Your task to perform on an android device: Search for usb-a to usb-b on ebay, select the first entry, and add it to the cart. Image 0: 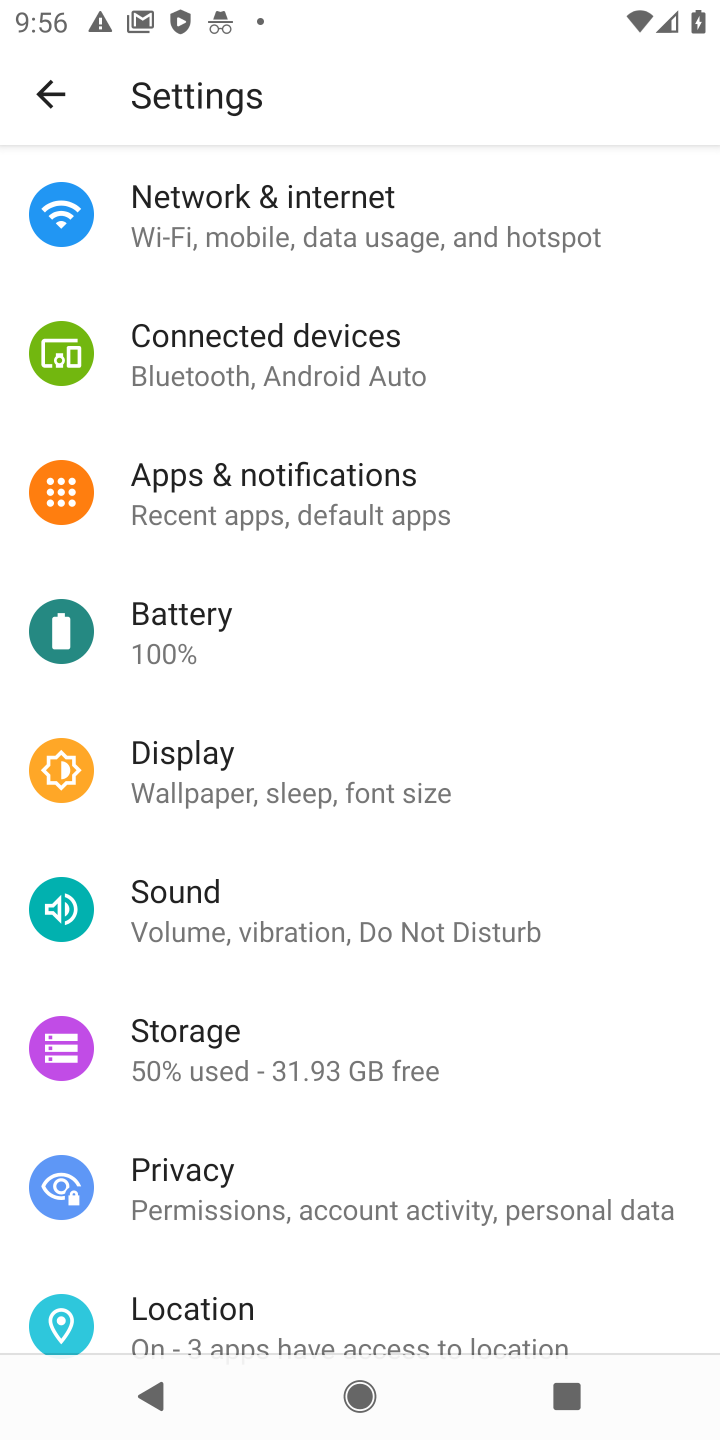
Step 0: press home button
Your task to perform on an android device: Search for usb-a to usb-b on ebay, select the first entry, and add it to the cart. Image 1: 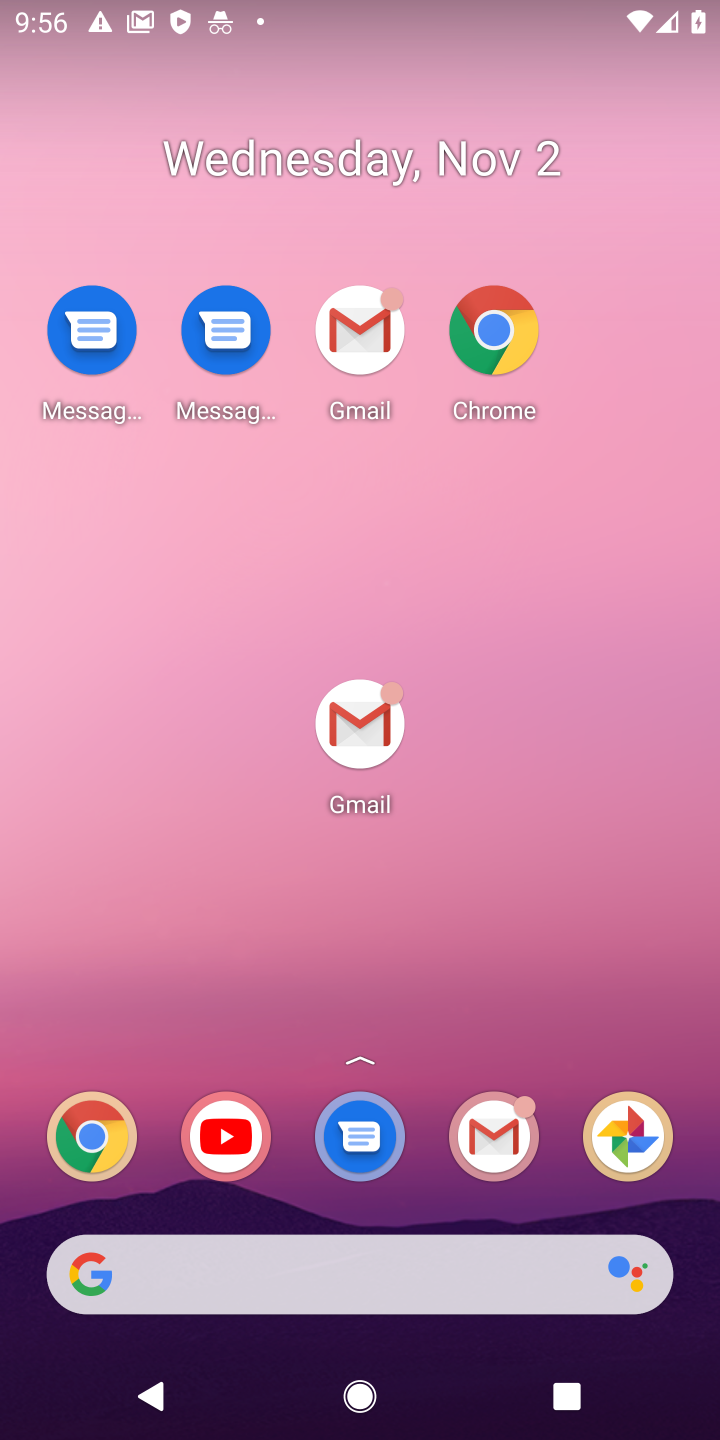
Step 1: drag from (254, 854) to (240, 445)
Your task to perform on an android device: Search for usb-a to usb-b on ebay, select the first entry, and add it to the cart. Image 2: 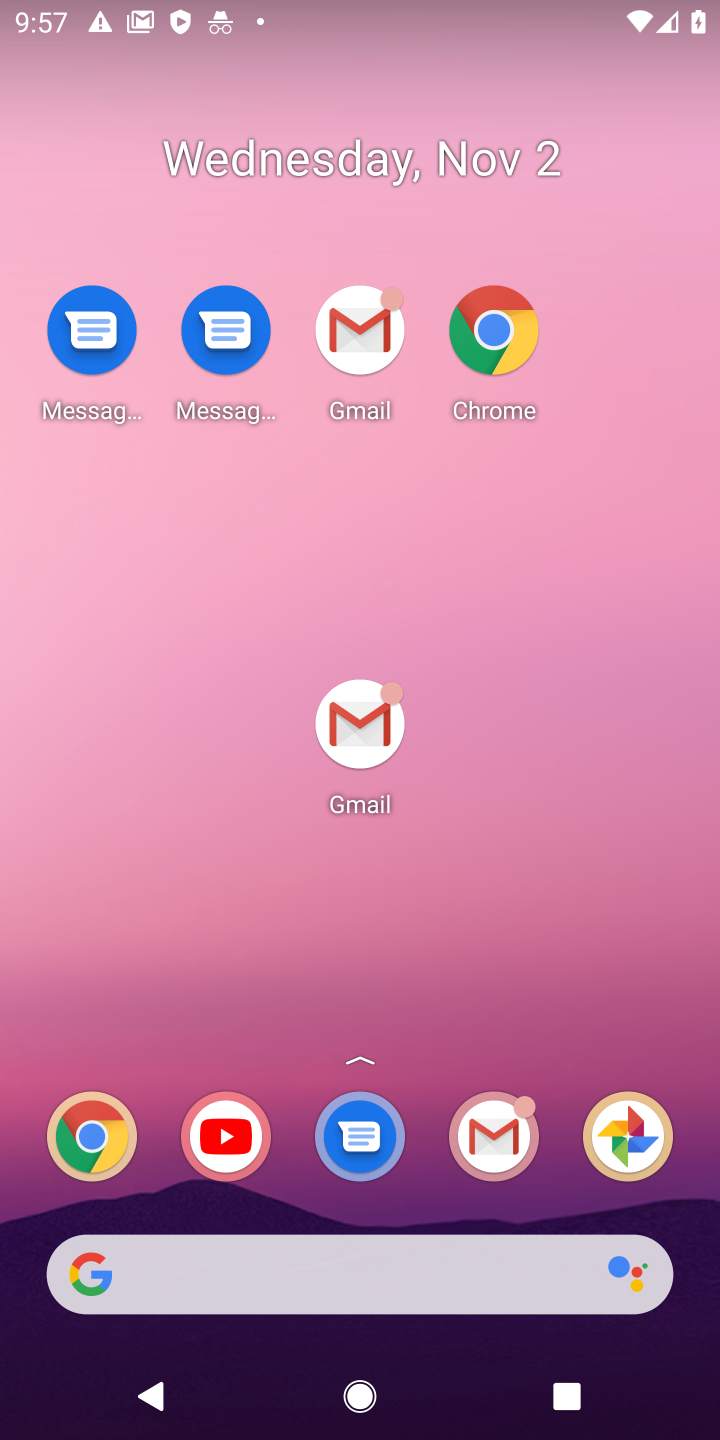
Step 2: drag from (286, 1286) to (297, 145)
Your task to perform on an android device: Search for usb-a to usb-b on ebay, select the first entry, and add it to the cart. Image 3: 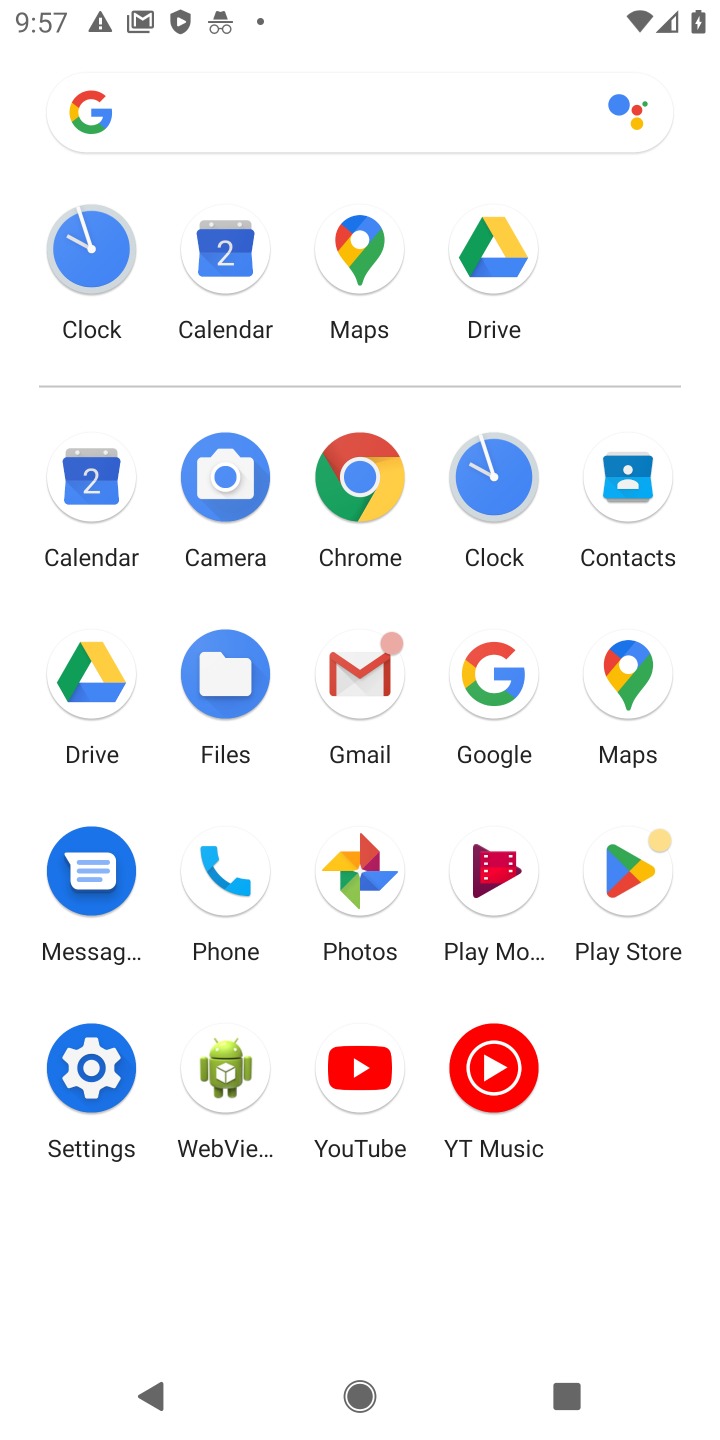
Step 3: click (490, 638)
Your task to perform on an android device: Search for usb-a to usb-b on ebay, select the first entry, and add it to the cart. Image 4: 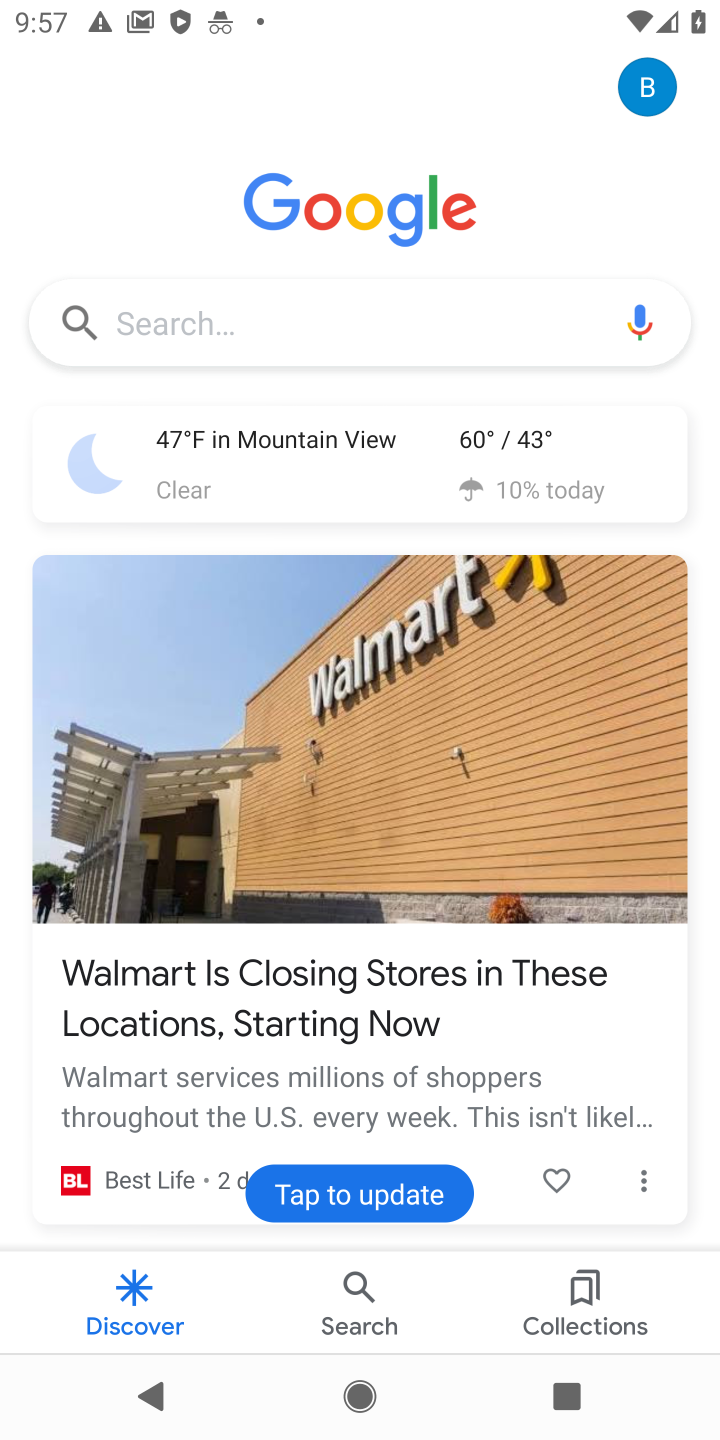
Step 4: click (316, 264)
Your task to perform on an android device: Search for usb-a to usb-b on ebay, select the first entry, and add it to the cart. Image 5: 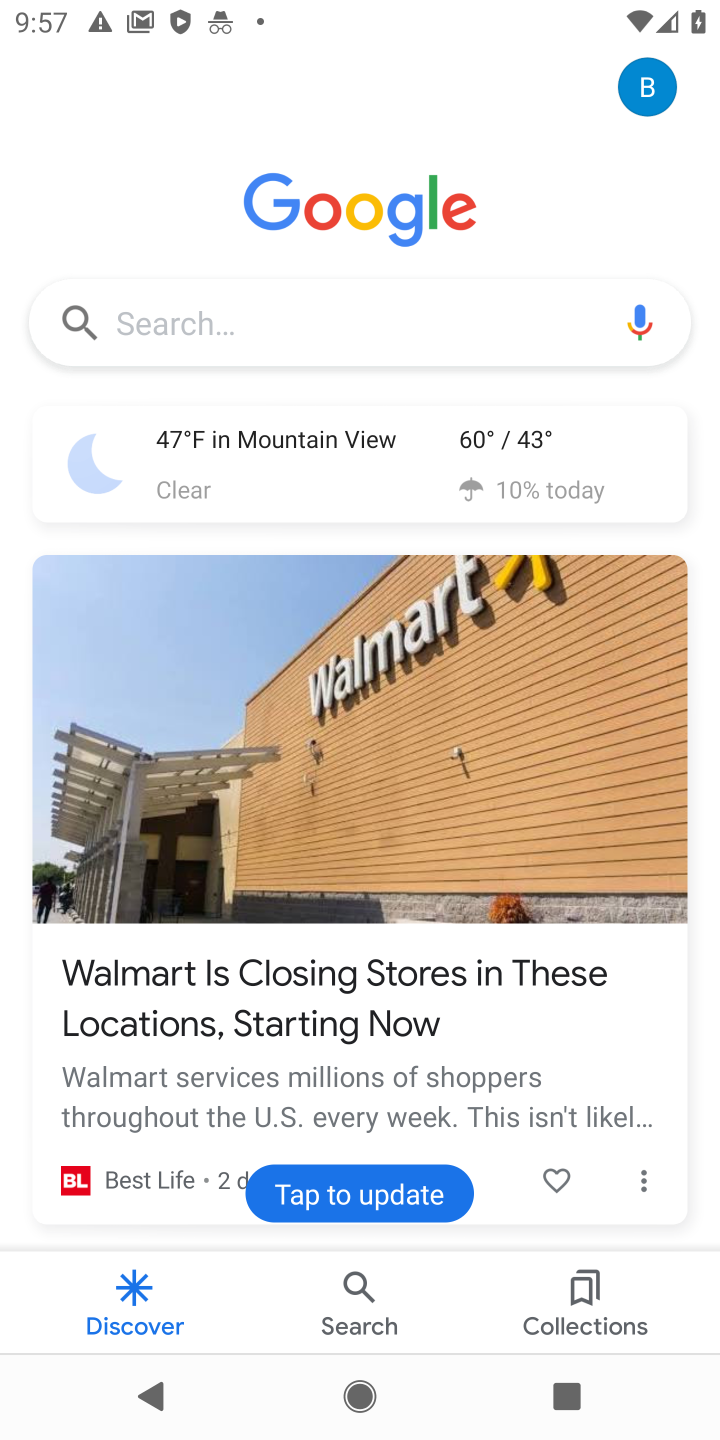
Step 5: type "usb-a to usb-b  "
Your task to perform on an android device: Search for usb-a to usb-b on ebay, select the first entry, and add it to the cart. Image 6: 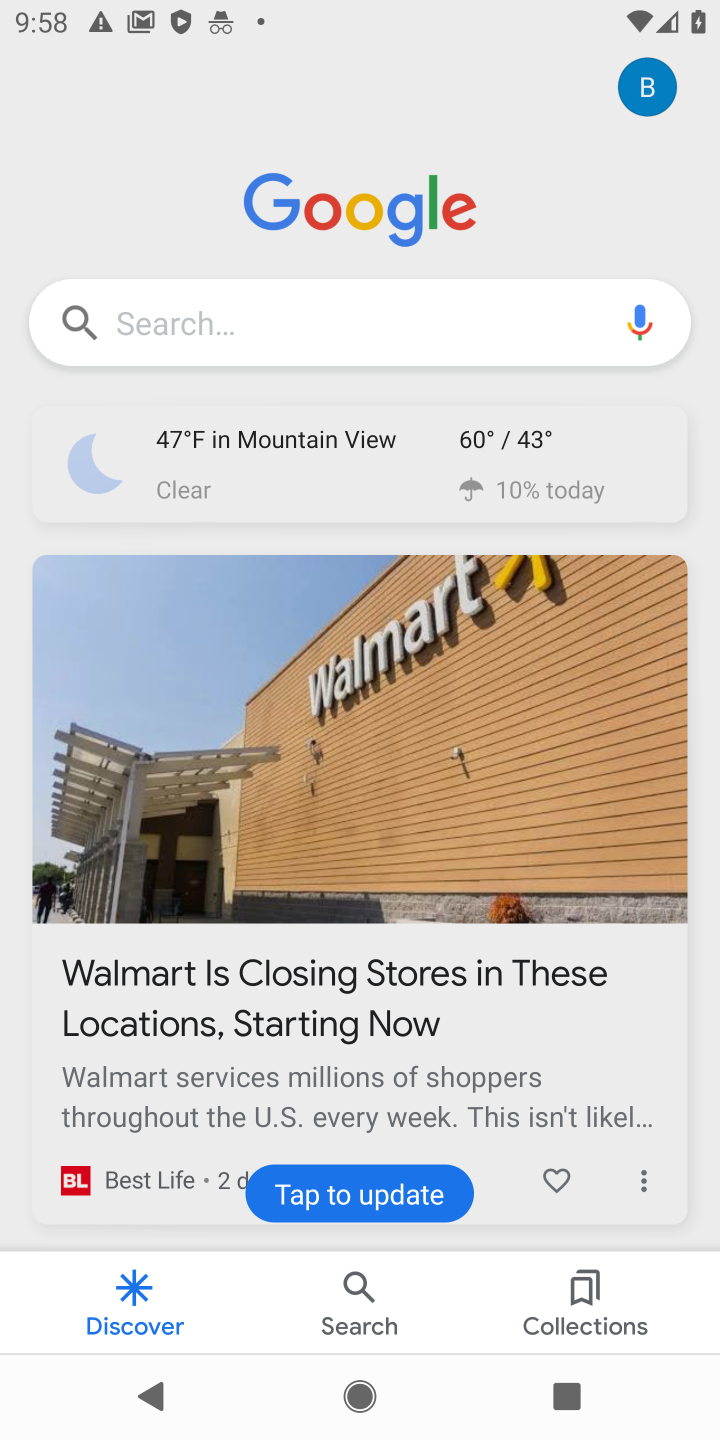
Step 6: click (383, 322)
Your task to perform on an android device: Search for usb-a to usb-b on ebay, select the first entry, and add it to the cart. Image 7: 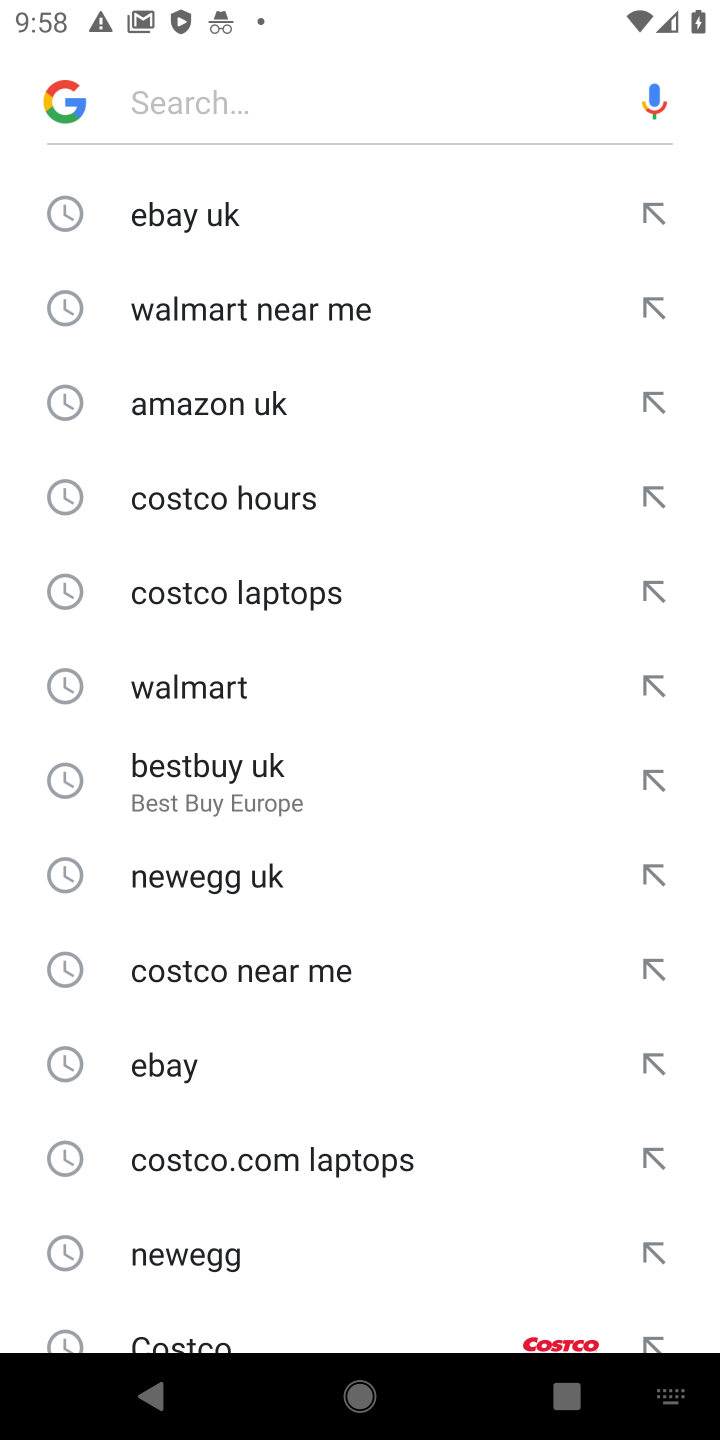
Step 7: type "ebay "
Your task to perform on an android device: Search for usb-a to usb-b on ebay, select the first entry, and add it to the cart. Image 8: 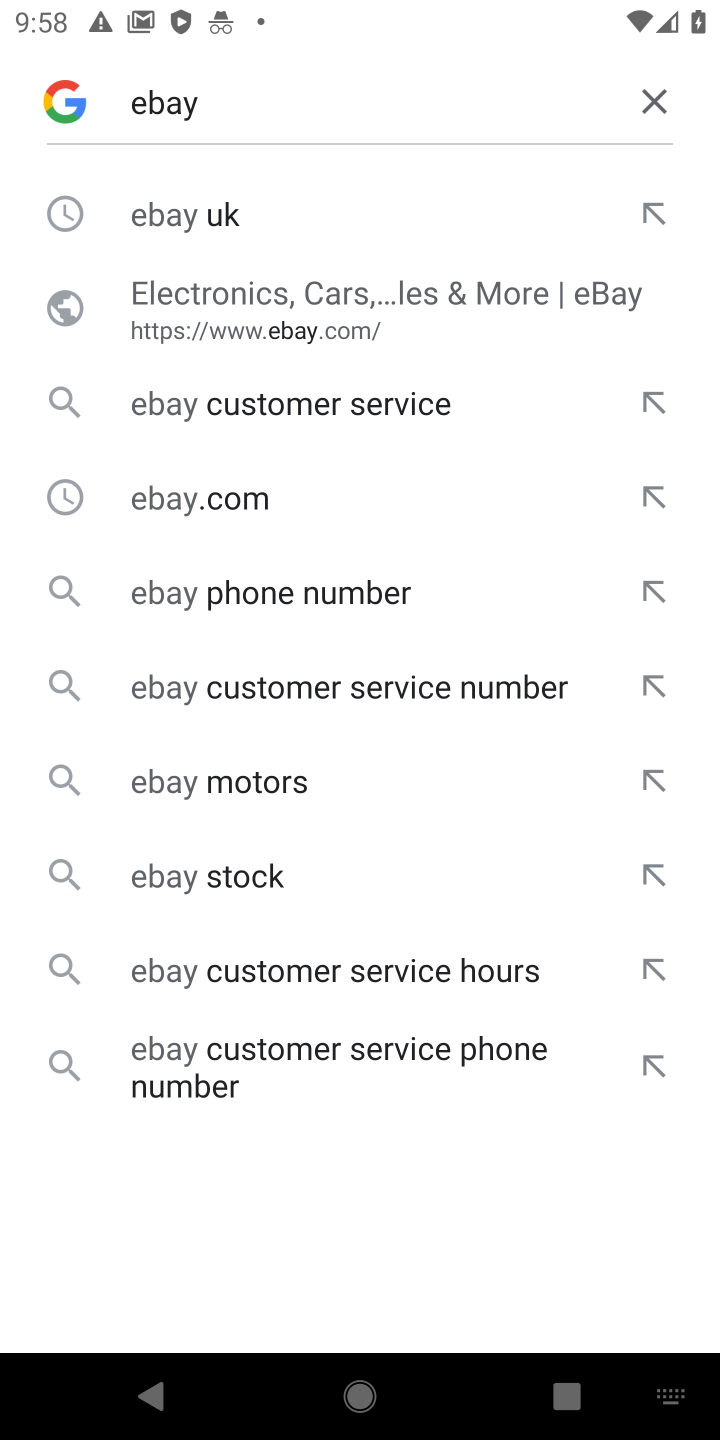
Step 8: click (215, 197)
Your task to perform on an android device: Search for usb-a to usb-b on ebay, select the first entry, and add it to the cart. Image 9: 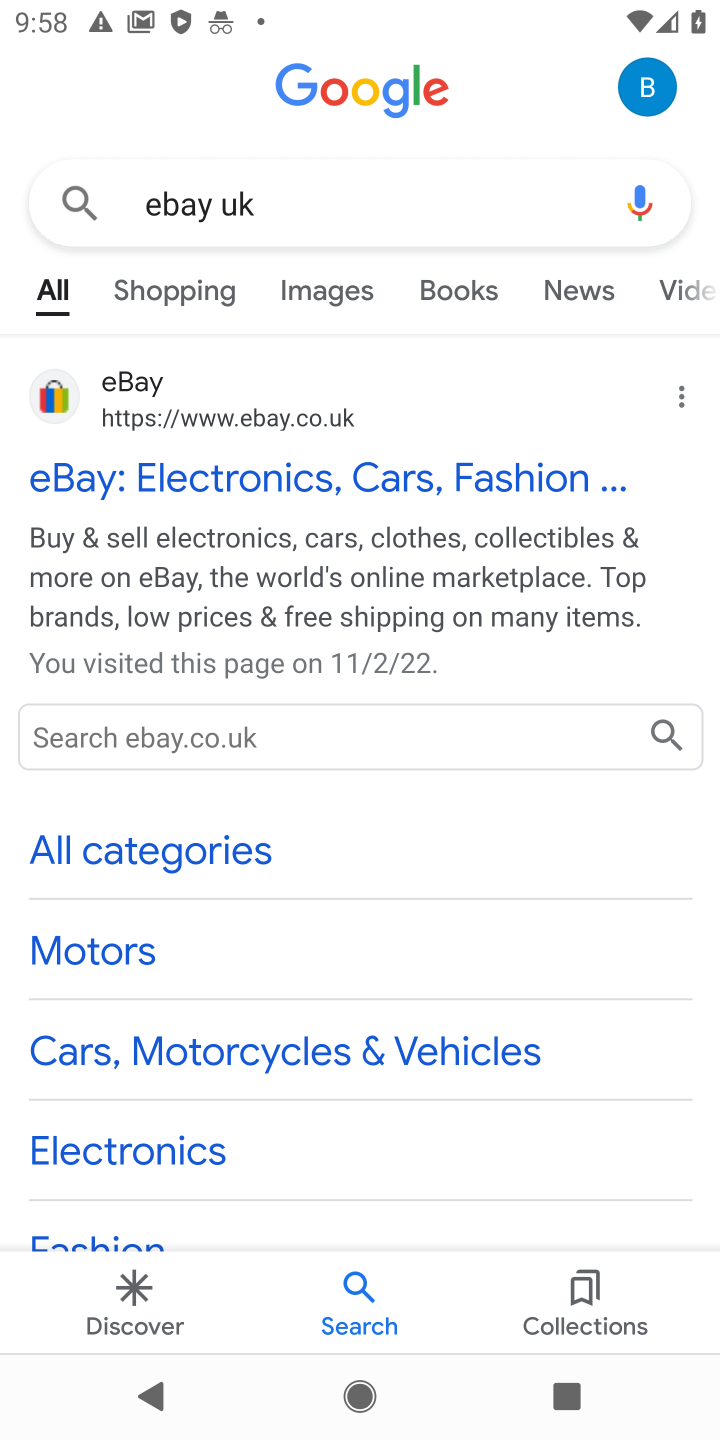
Step 9: click (39, 400)
Your task to perform on an android device: Search for usb-a to usb-b on ebay, select the first entry, and add it to the cart. Image 10: 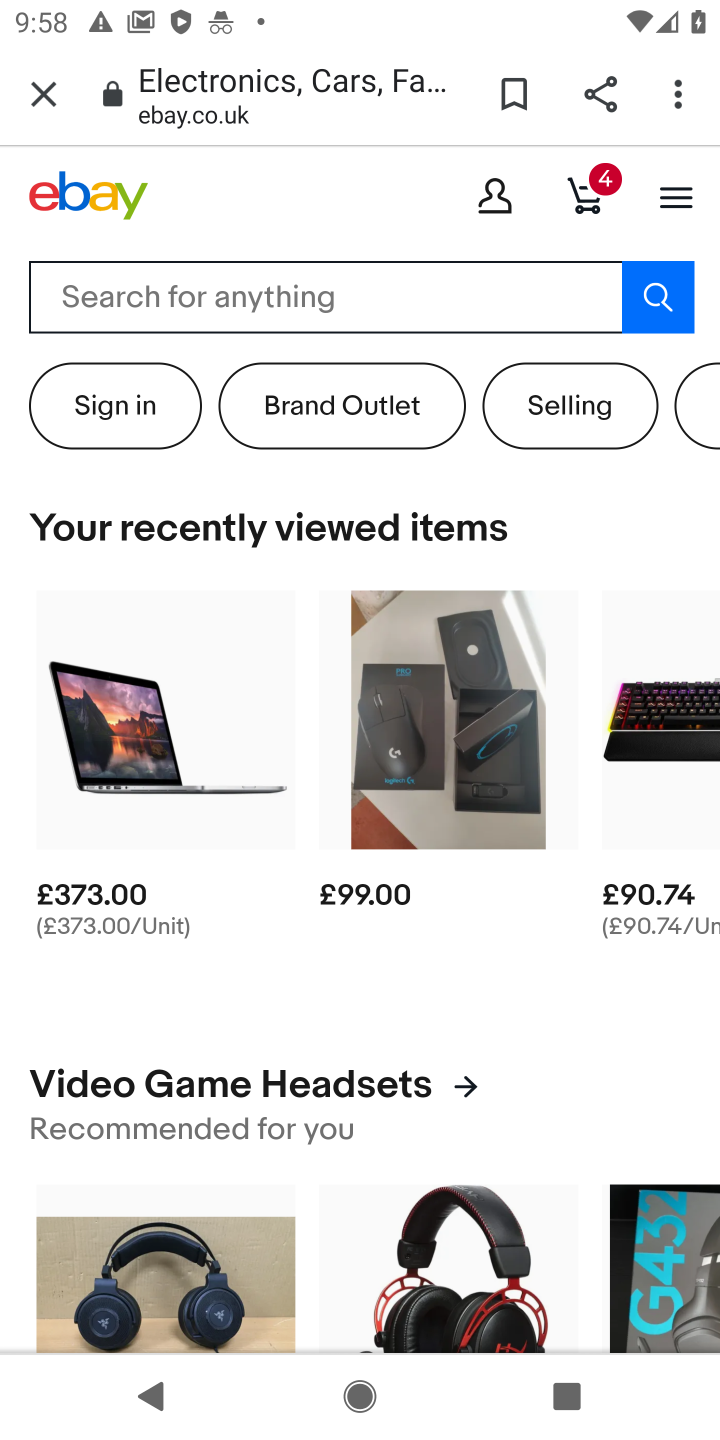
Step 10: click (219, 286)
Your task to perform on an android device: Search for usb-a to usb-b on ebay, select the first entry, and add it to the cart. Image 11: 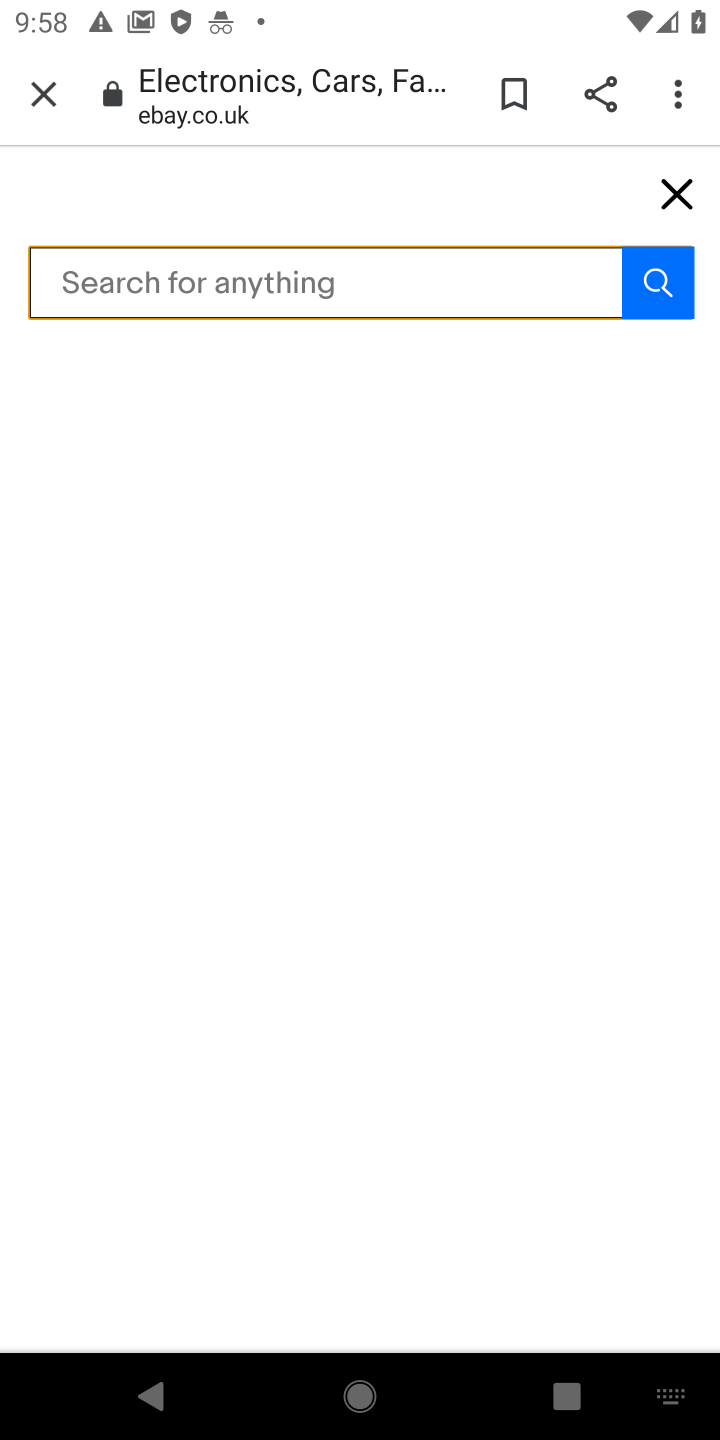
Step 11: click (319, 250)
Your task to perform on an android device: Search for usb-a to usb-b on ebay, select the first entry, and add it to the cart. Image 12: 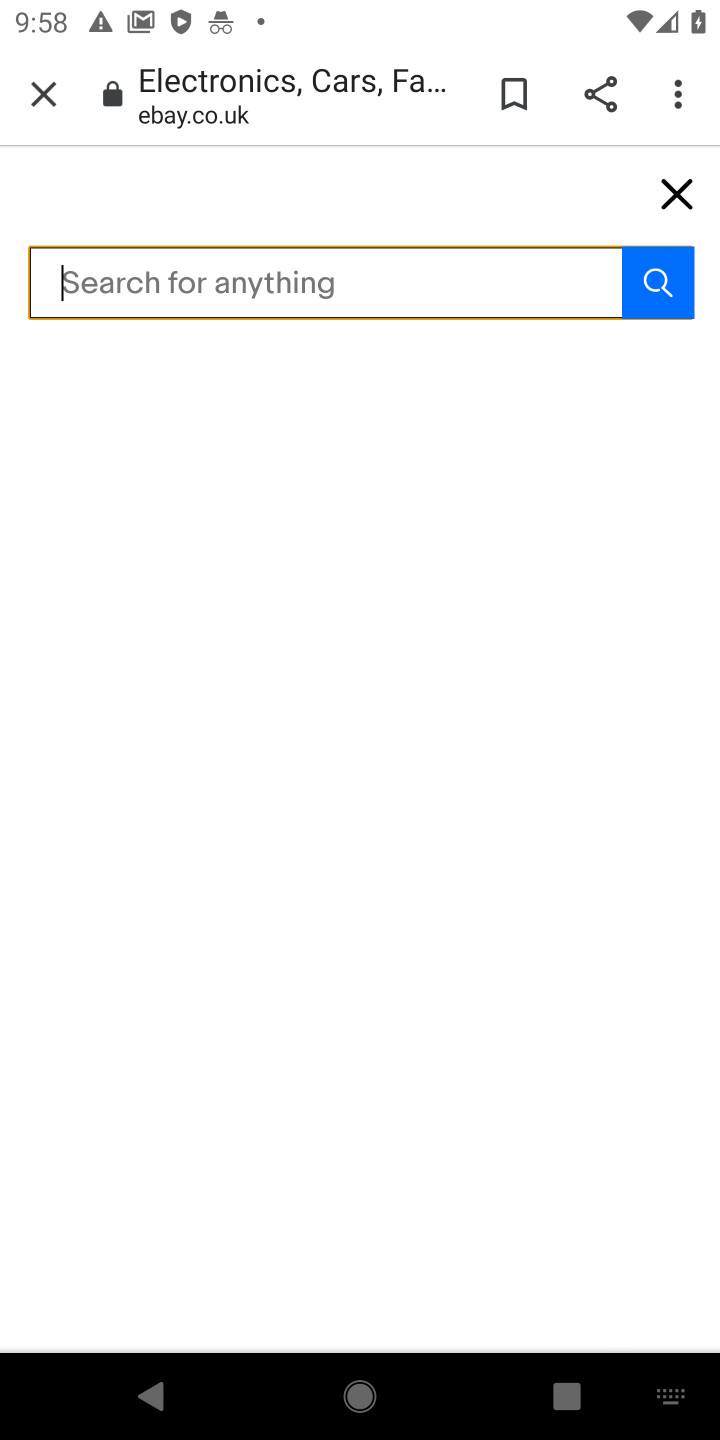
Step 12: click (321, 250)
Your task to perform on an android device: Search for usb-a to usb-b on ebay, select the first entry, and add it to the cart. Image 13: 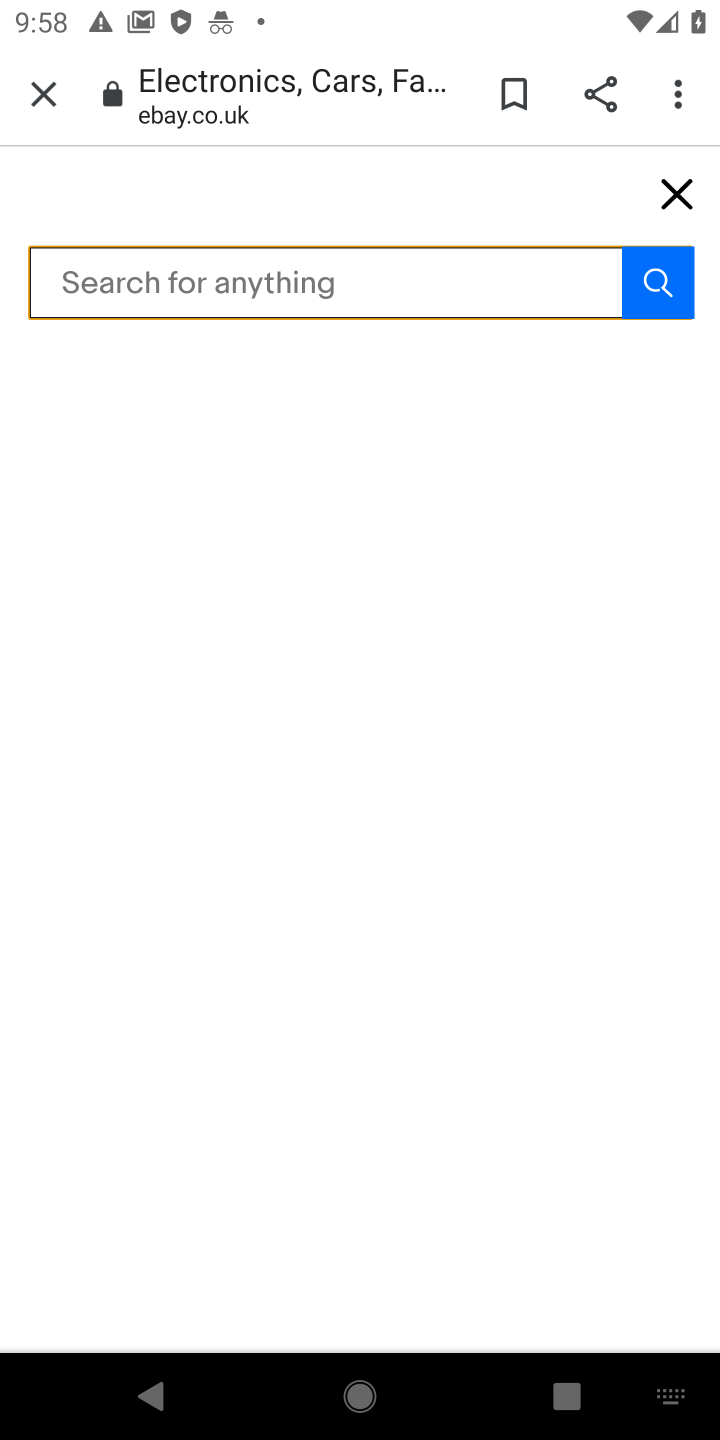
Step 13: click (338, 289)
Your task to perform on an android device: Search for usb-a to usb-b on ebay, select the first entry, and add it to the cart. Image 14: 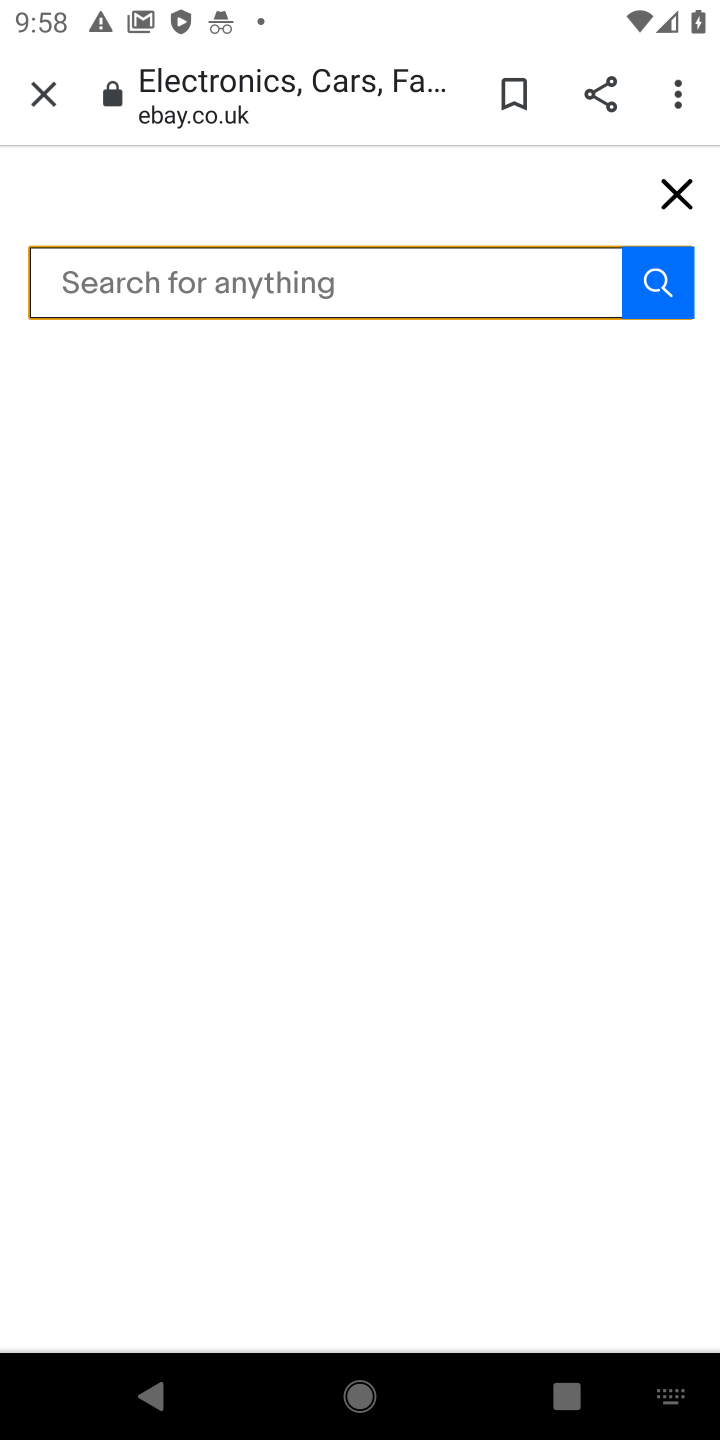
Step 14: type "usb-a to usb-b "
Your task to perform on an android device: Search for usb-a to usb-b on ebay, select the first entry, and add it to the cart. Image 15: 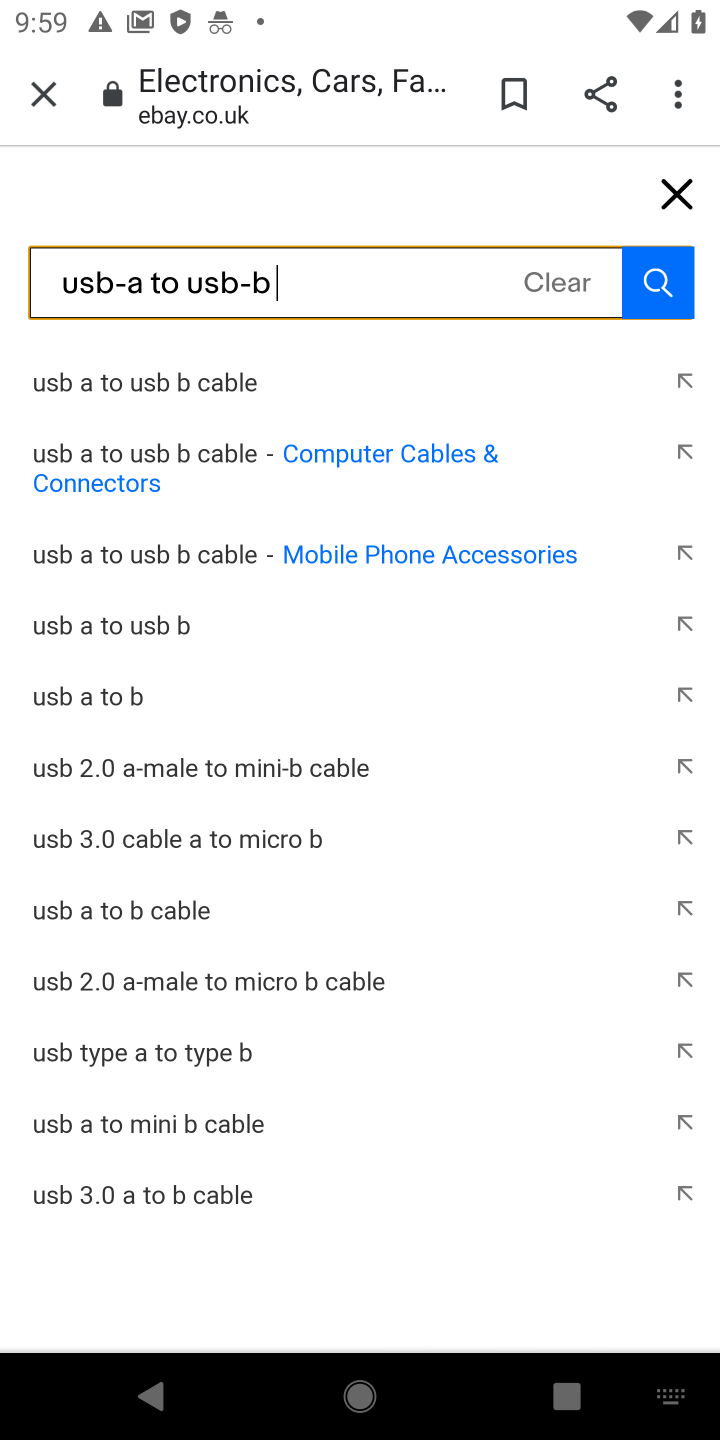
Step 15: click (228, 381)
Your task to perform on an android device: Search for usb-a to usb-b on ebay, select the first entry, and add it to the cart. Image 16: 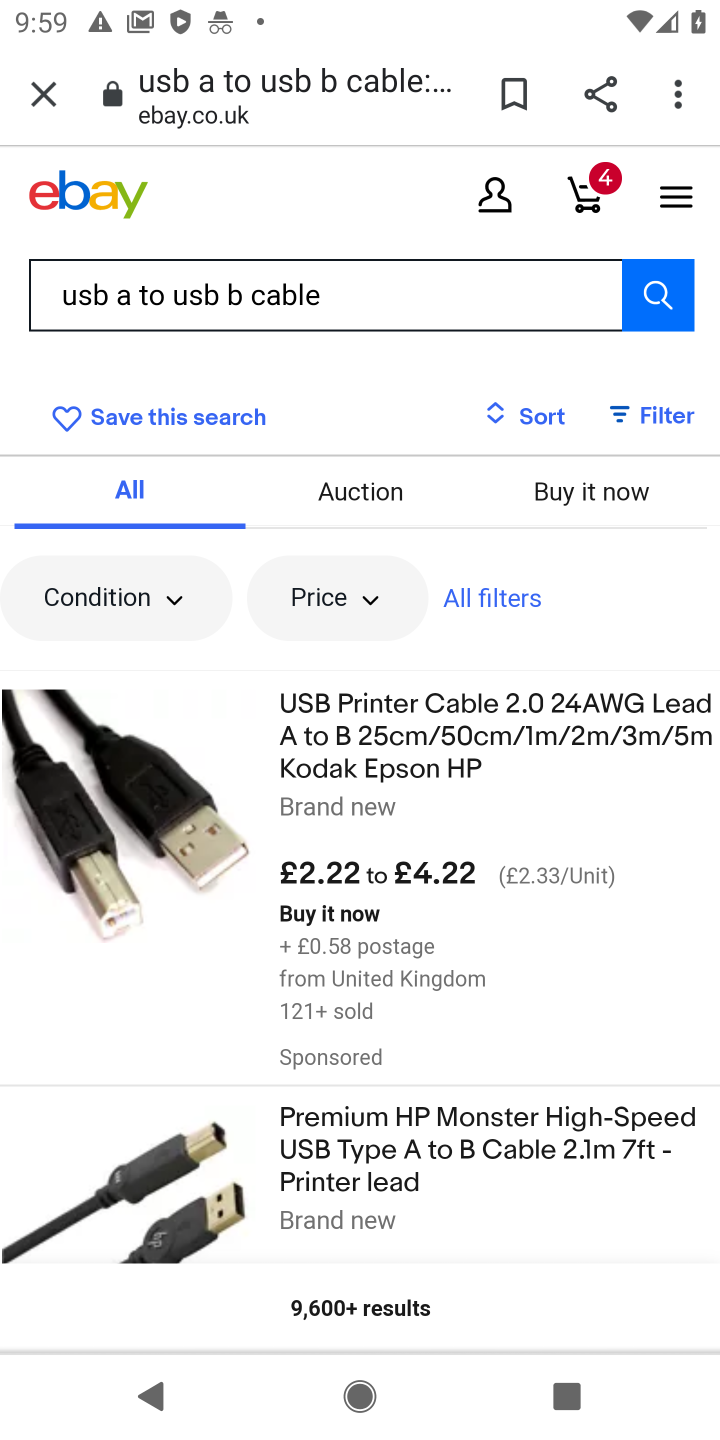
Step 16: click (540, 686)
Your task to perform on an android device: Search for usb-a to usb-b on ebay, select the first entry, and add it to the cart. Image 17: 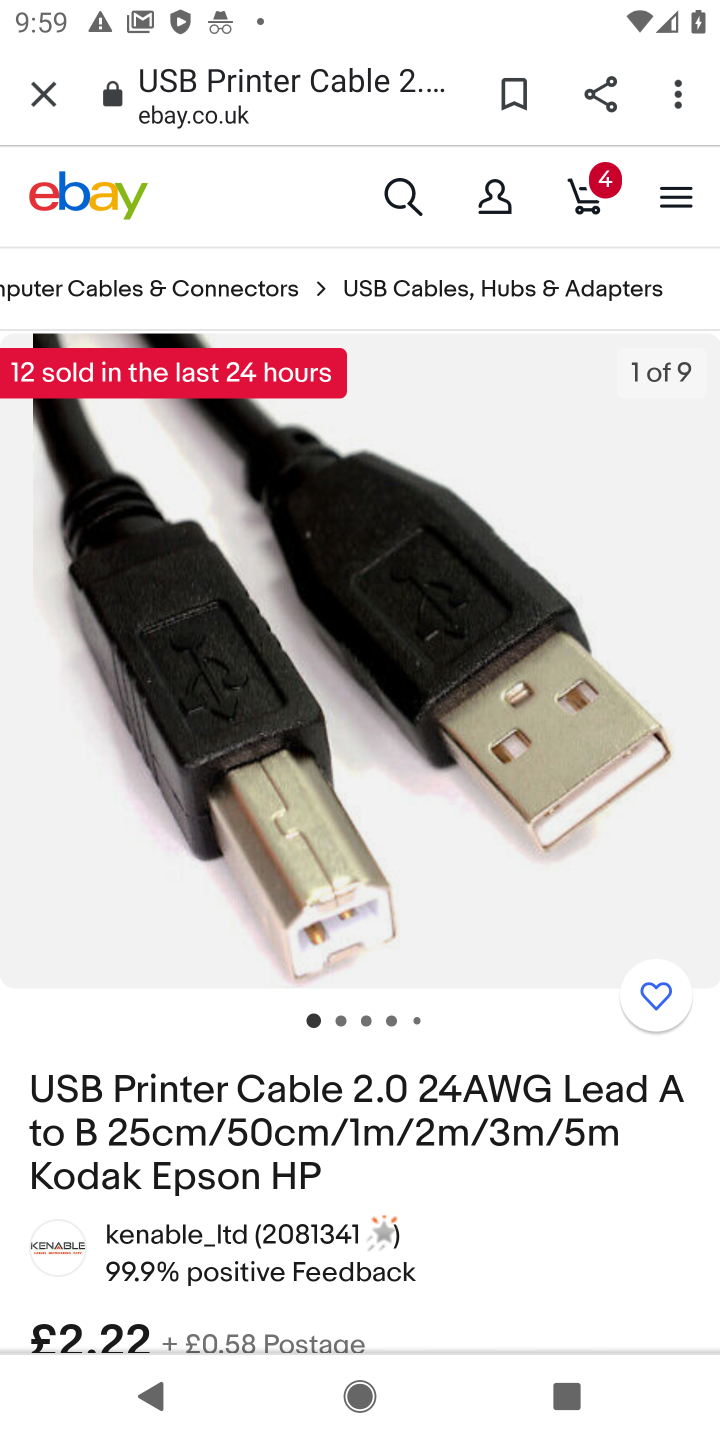
Step 17: drag from (389, 1228) to (393, 394)
Your task to perform on an android device: Search for usb-a to usb-b on ebay, select the first entry, and add it to the cart. Image 18: 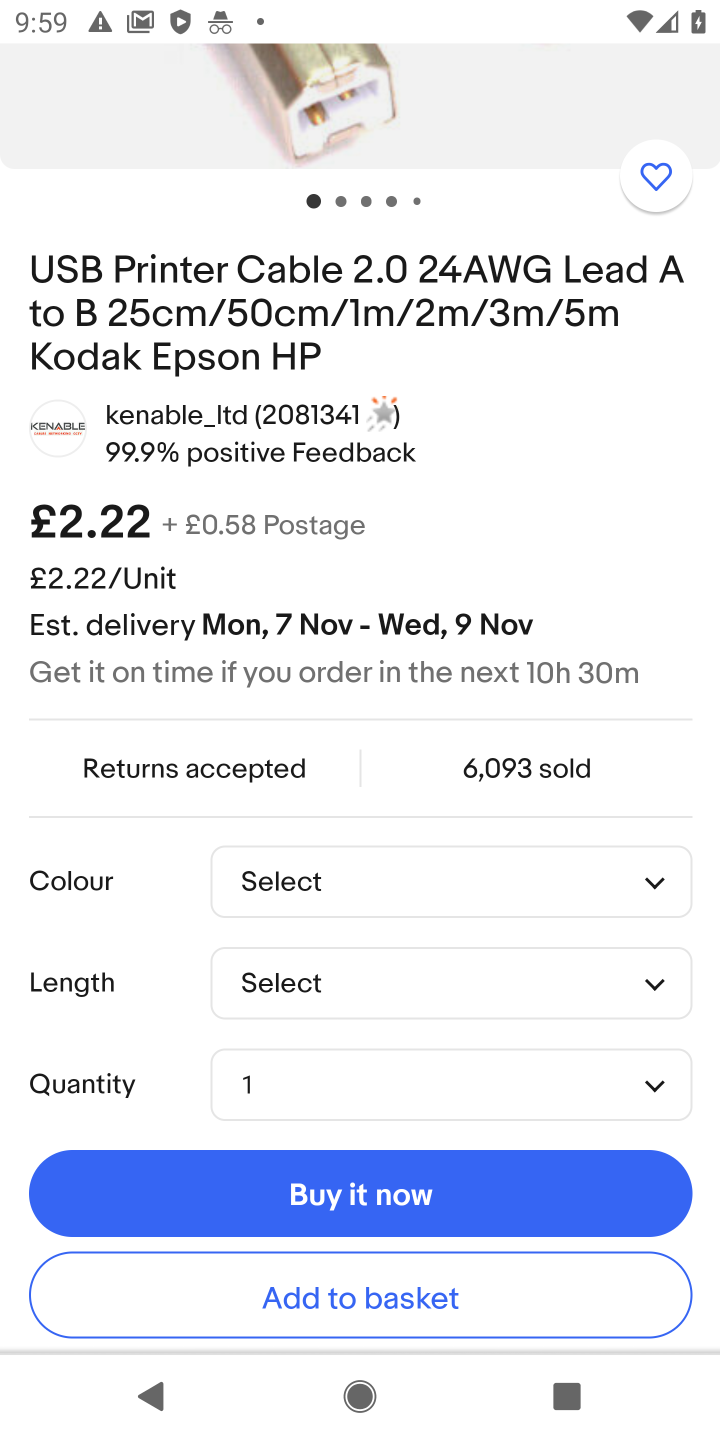
Step 18: click (365, 1286)
Your task to perform on an android device: Search for usb-a to usb-b on ebay, select the first entry, and add it to the cart. Image 19: 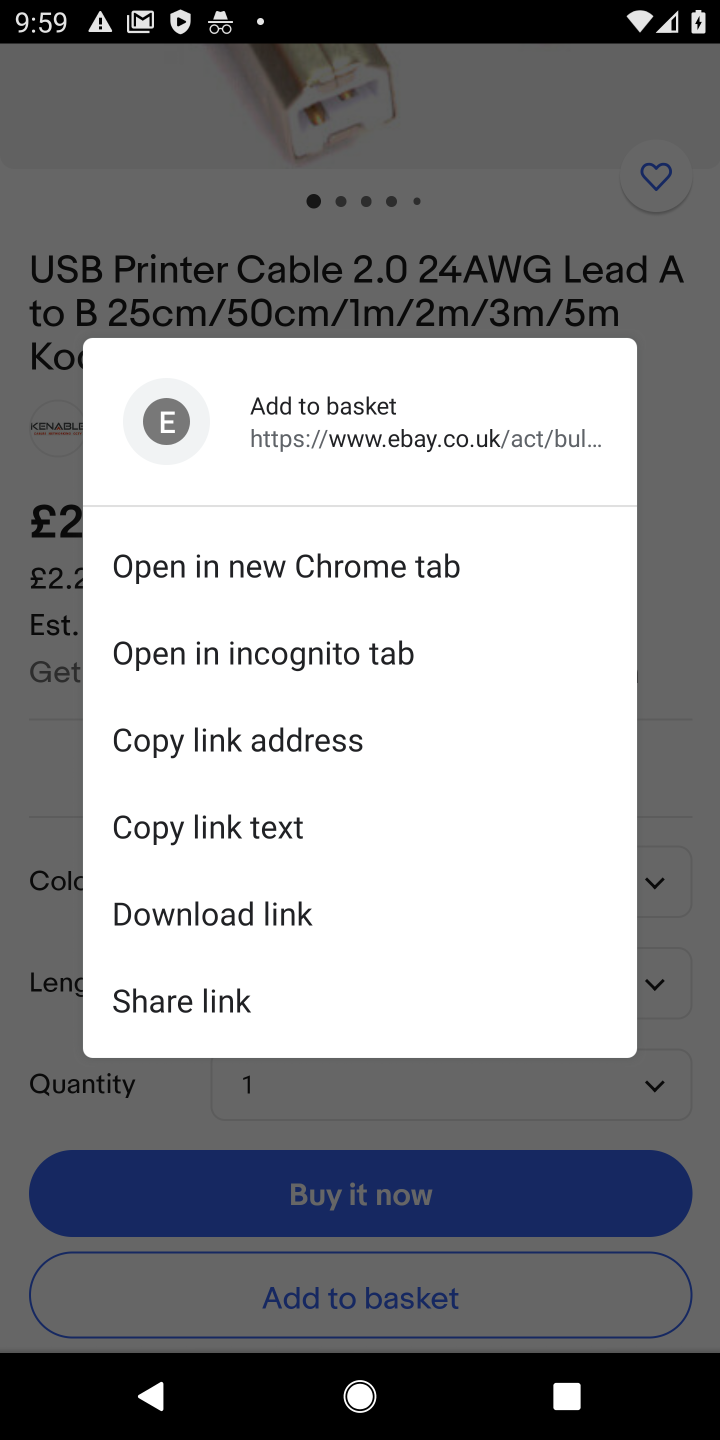
Step 19: click (366, 1297)
Your task to perform on an android device: Search for usb-a to usb-b on ebay, select the first entry, and add it to the cart. Image 20: 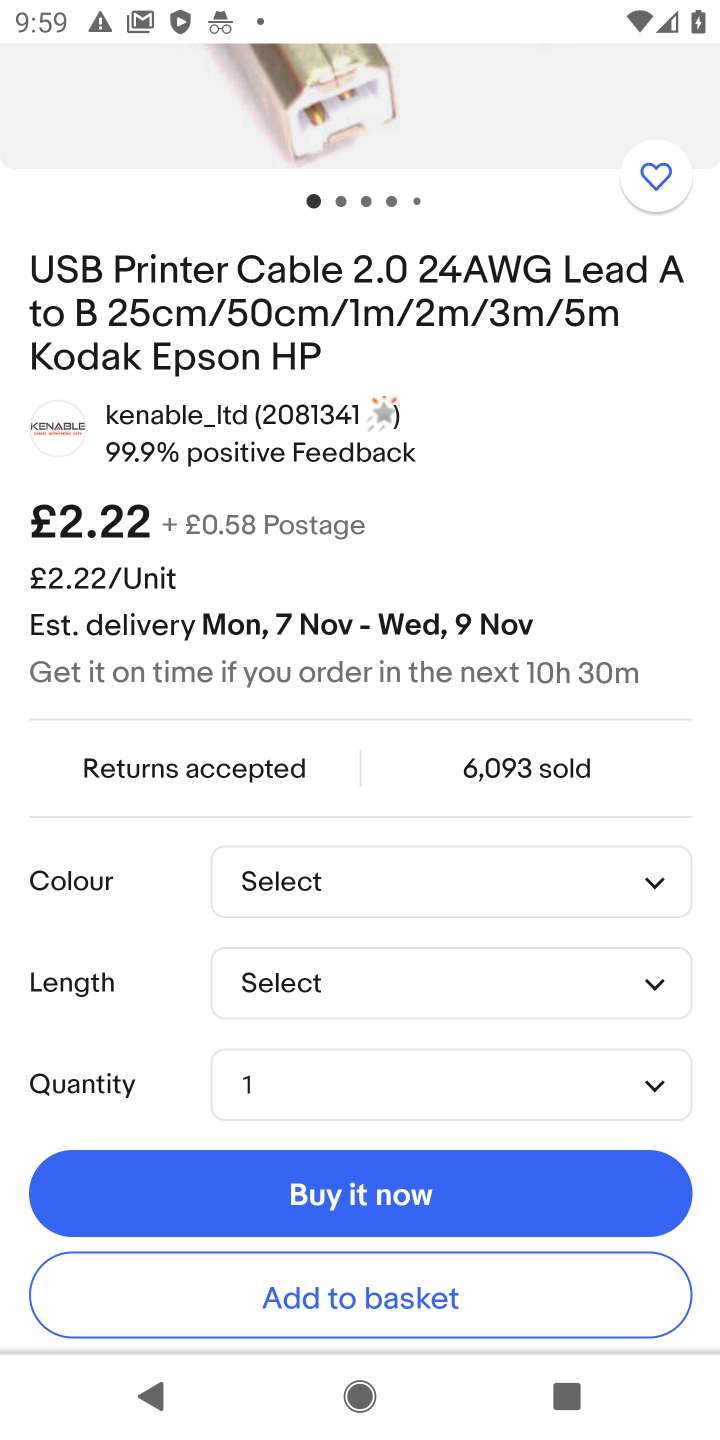
Step 20: click (366, 1297)
Your task to perform on an android device: Search for usb-a to usb-b on ebay, select the first entry, and add it to the cart. Image 21: 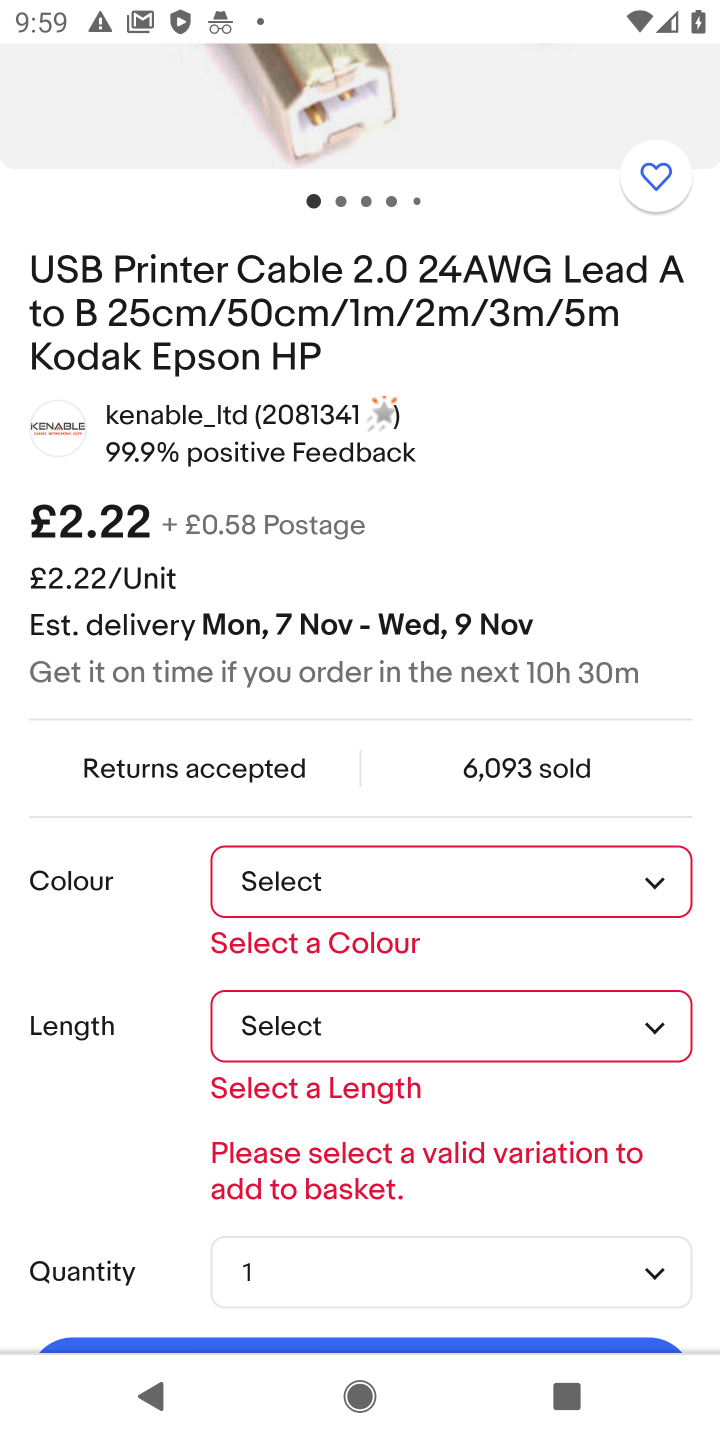
Step 21: drag from (189, 1163) to (337, 176)
Your task to perform on an android device: Search for usb-a to usb-b on ebay, select the first entry, and add it to the cart. Image 22: 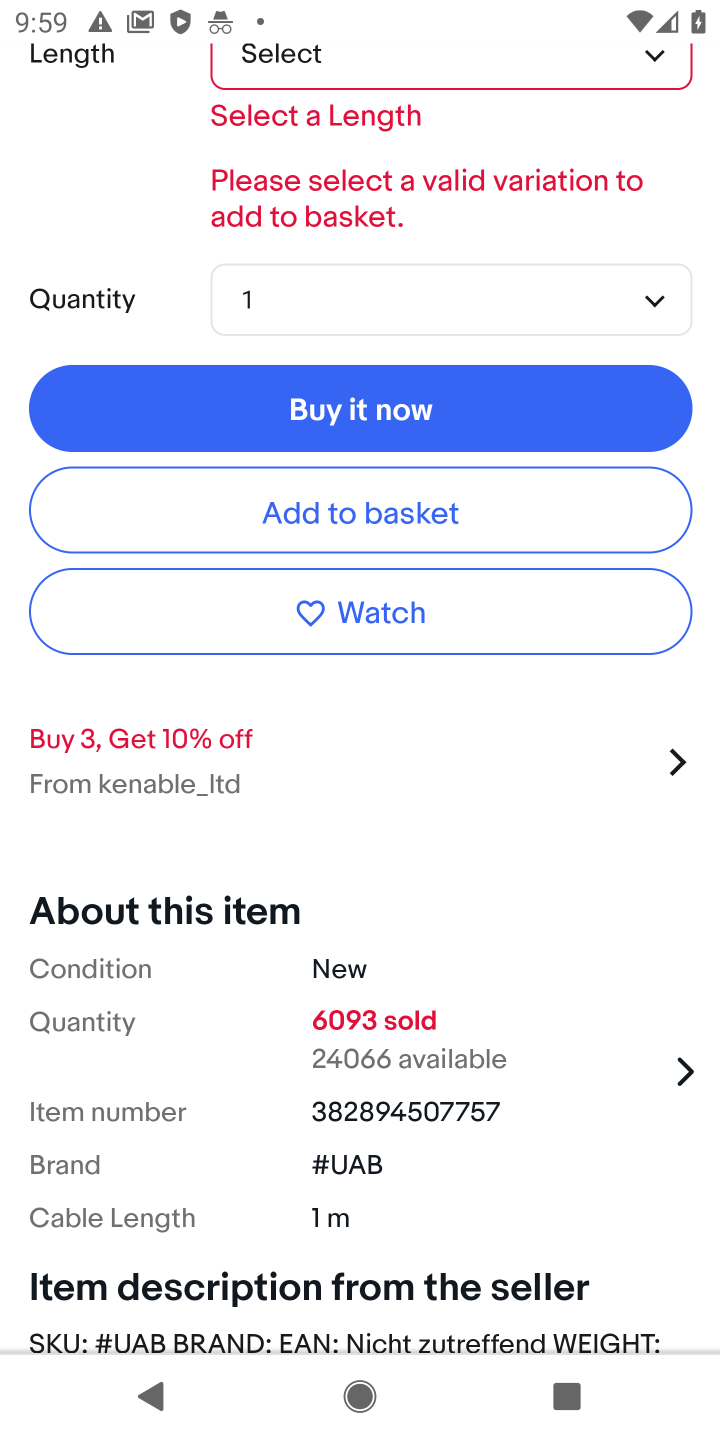
Step 22: click (429, 495)
Your task to perform on an android device: Search for usb-a to usb-b on ebay, select the first entry, and add it to the cart. Image 23: 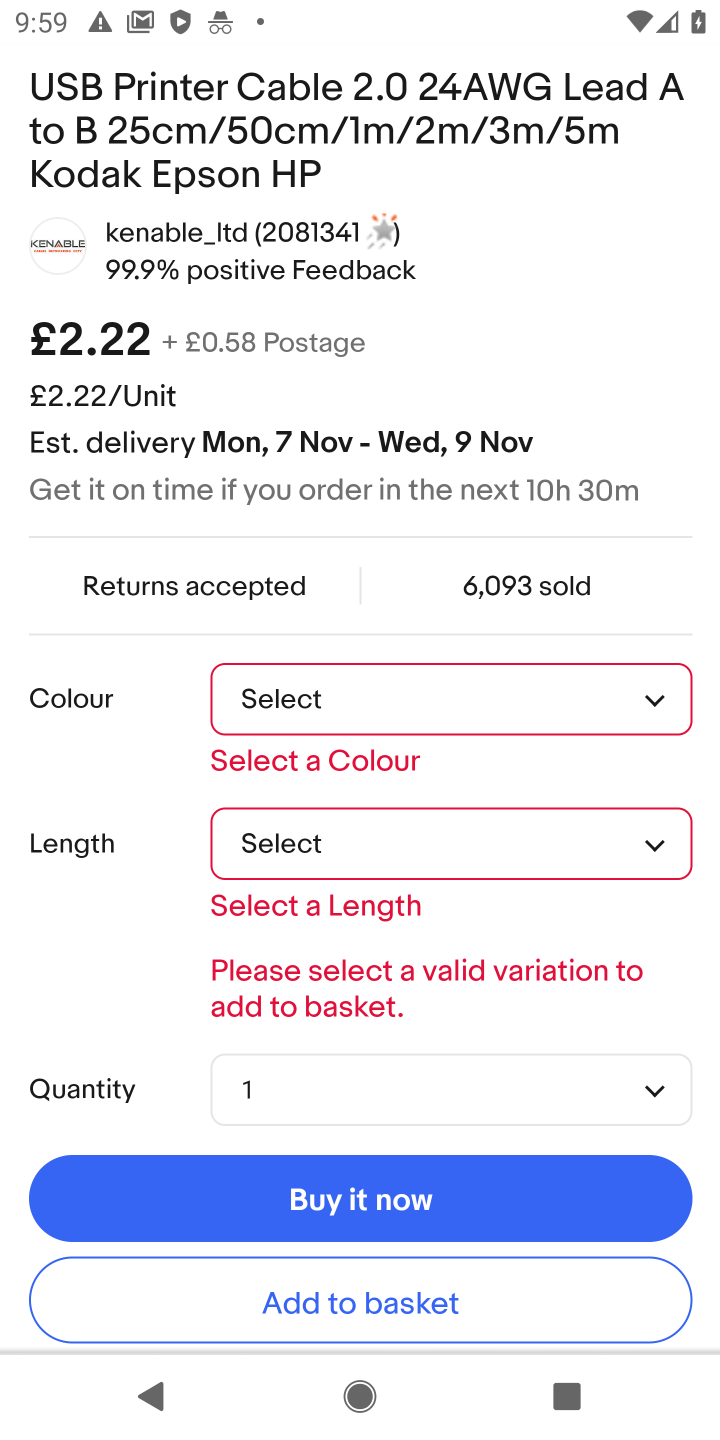
Step 23: click (462, 1302)
Your task to perform on an android device: Search for usb-a to usb-b on ebay, select the first entry, and add it to the cart. Image 24: 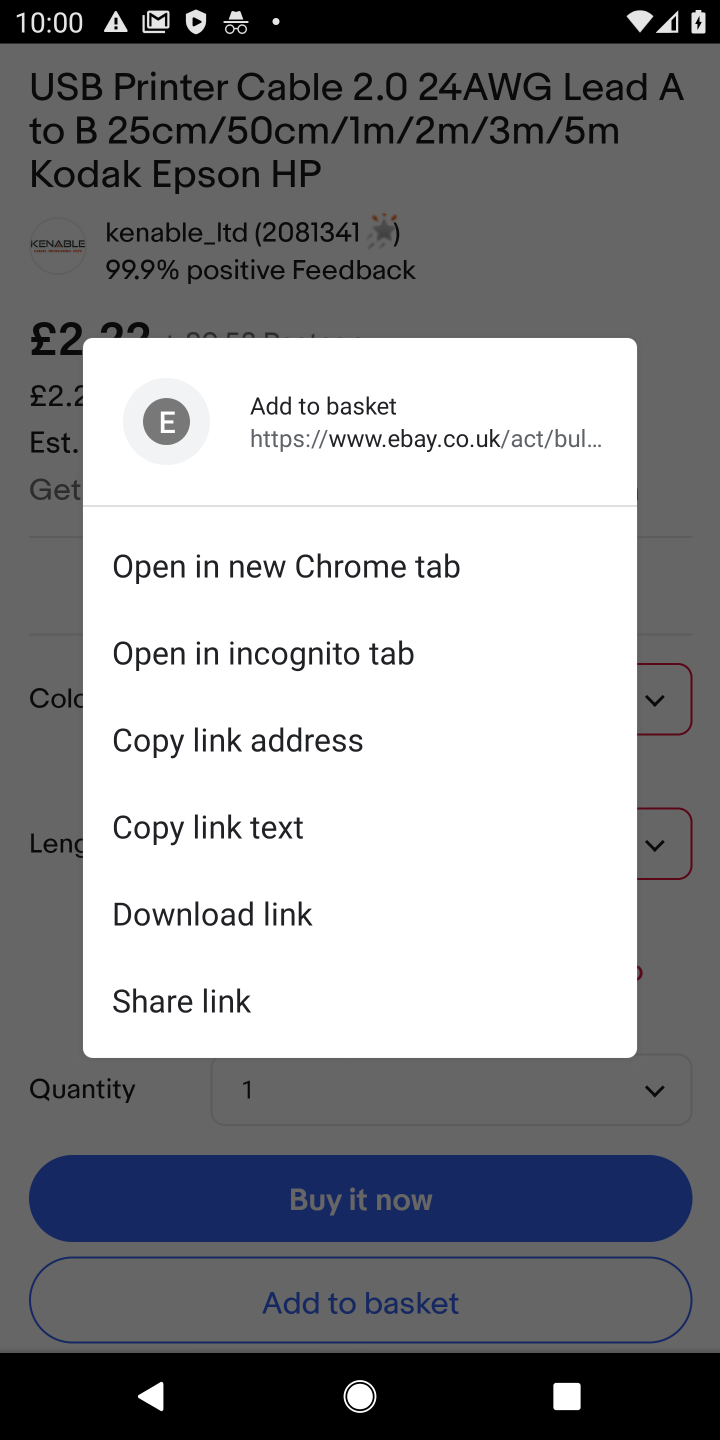
Step 24: task complete